Your task to perform on an android device: Search for a 1/4" hex shank drill bit on Lowe's. Image 0: 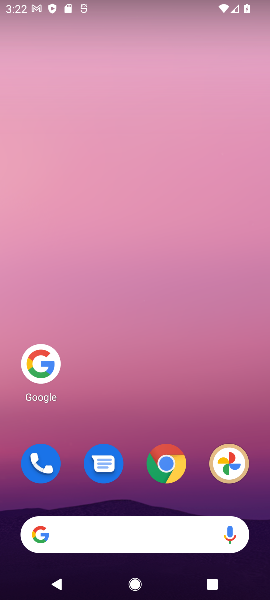
Step 0: drag from (127, 513) to (165, 167)
Your task to perform on an android device: Search for a 1/4" hex shank drill bit on Lowe's. Image 1: 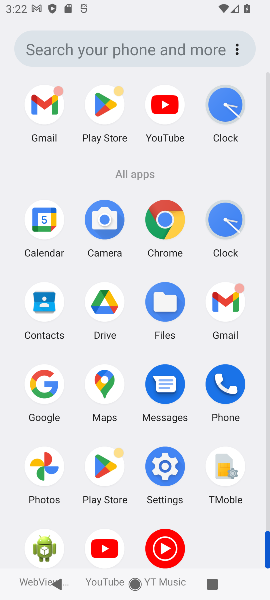
Step 1: click (53, 383)
Your task to perform on an android device: Search for a 1/4" hex shank drill bit on Lowe's. Image 2: 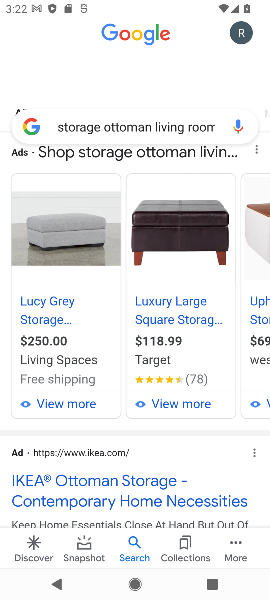
Step 2: task complete